Your task to perform on an android device: Search for the best rated drill on Lowes.com Image 0: 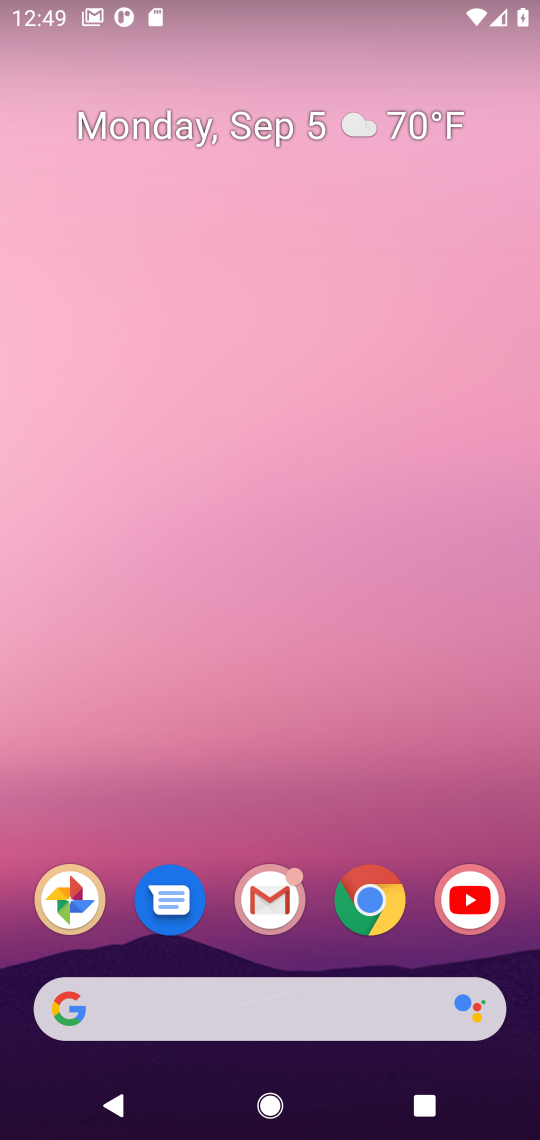
Step 0: click (374, 901)
Your task to perform on an android device: Search for the best rated drill on Lowes.com Image 1: 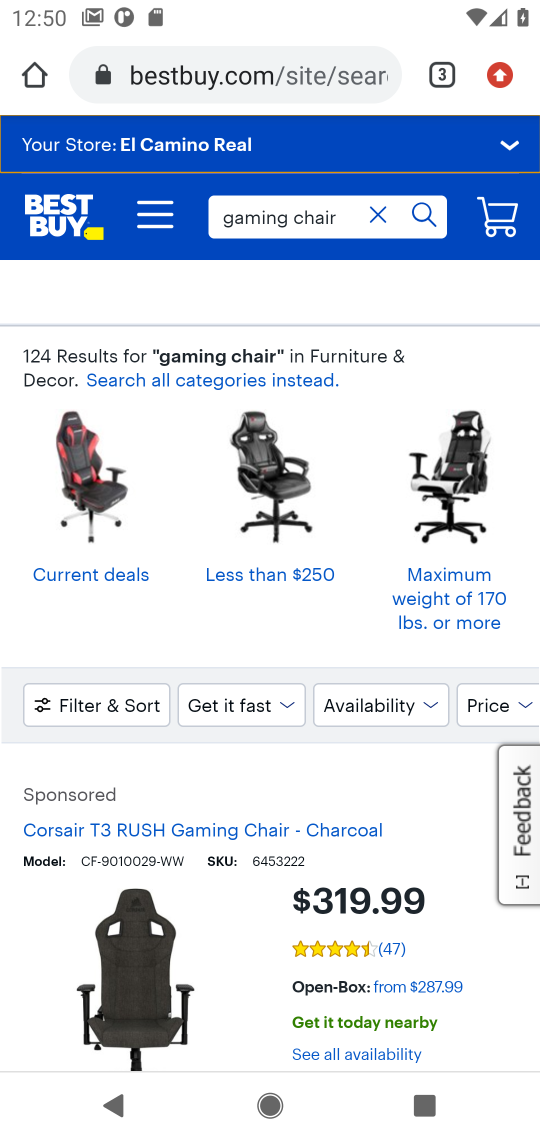
Step 1: click (505, 78)
Your task to perform on an android device: Search for the best rated drill on Lowes.com Image 2: 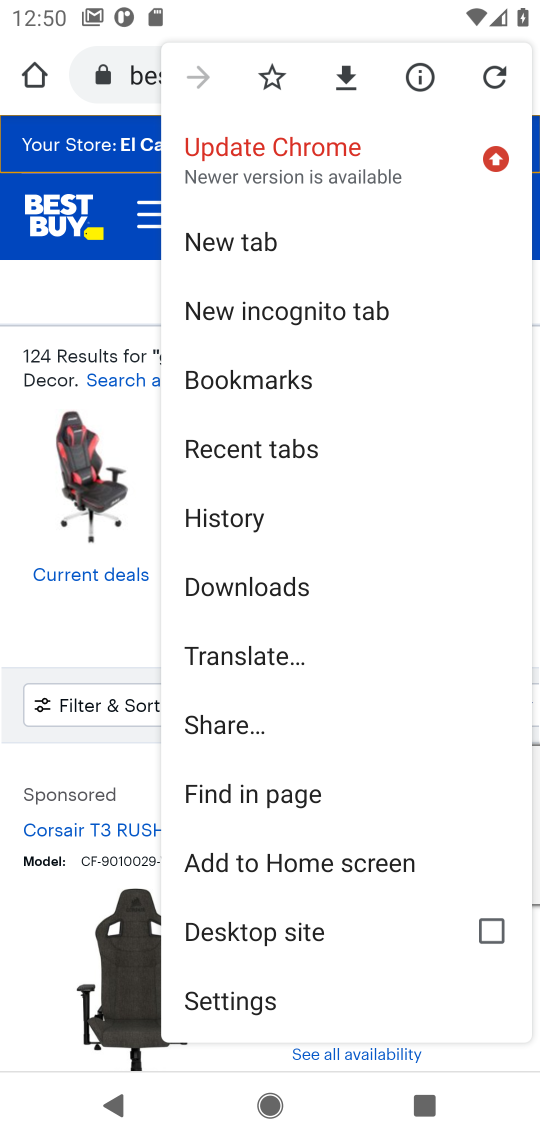
Step 2: click (217, 250)
Your task to perform on an android device: Search for the best rated drill on Lowes.com Image 3: 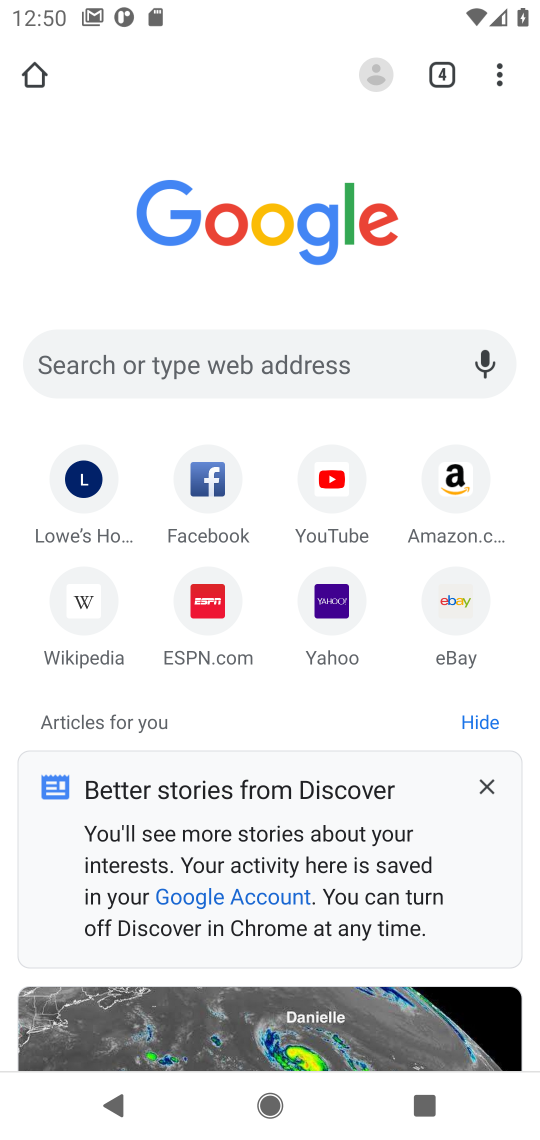
Step 3: click (270, 370)
Your task to perform on an android device: Search for the best rated drill on Lowes.com Image 4: 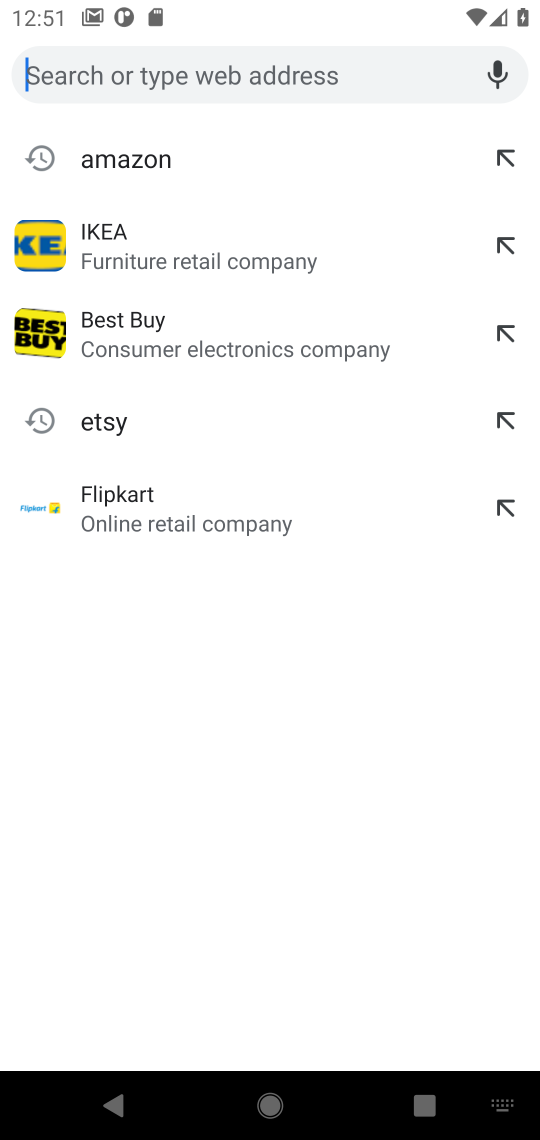
Step 4: type "Lowes.com"
Your task to perform on an android device: Search for the best rated drill on Lowes.com Image 5: 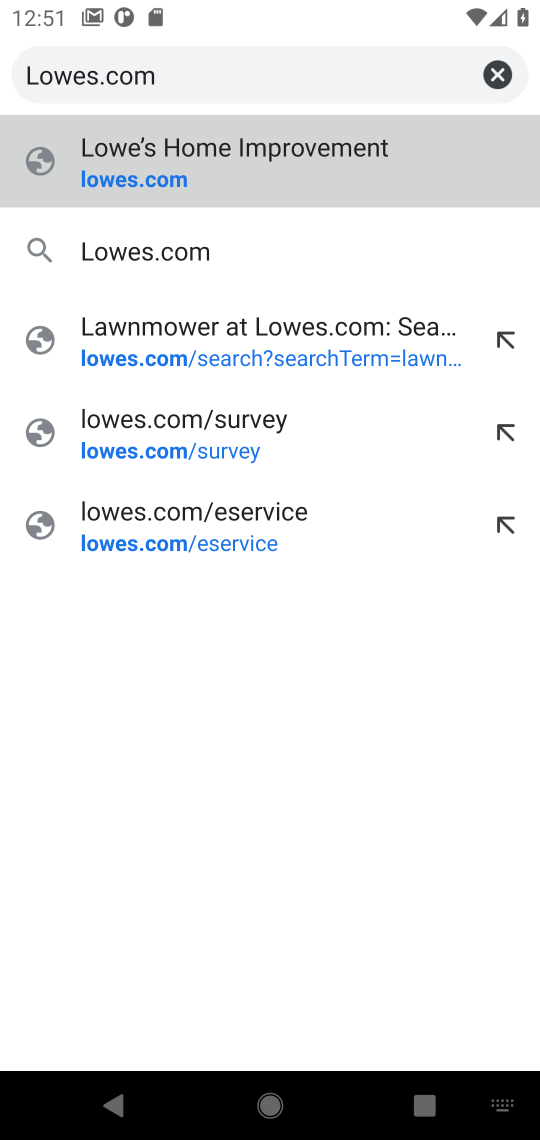
Step 5: click (115, 252)
Your task to perform on an android device: Search for the best rated drill on Lowes.com Image 6: 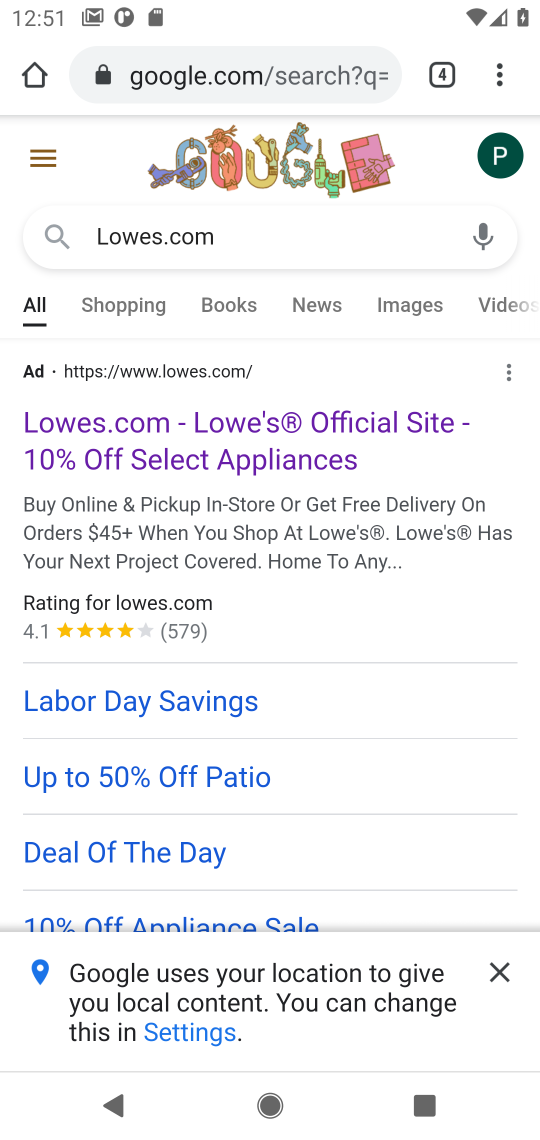
Step 6: click (110, 446)
Your task to perform on an android device: Search for the best rated drill on Lowes.com Image 7: 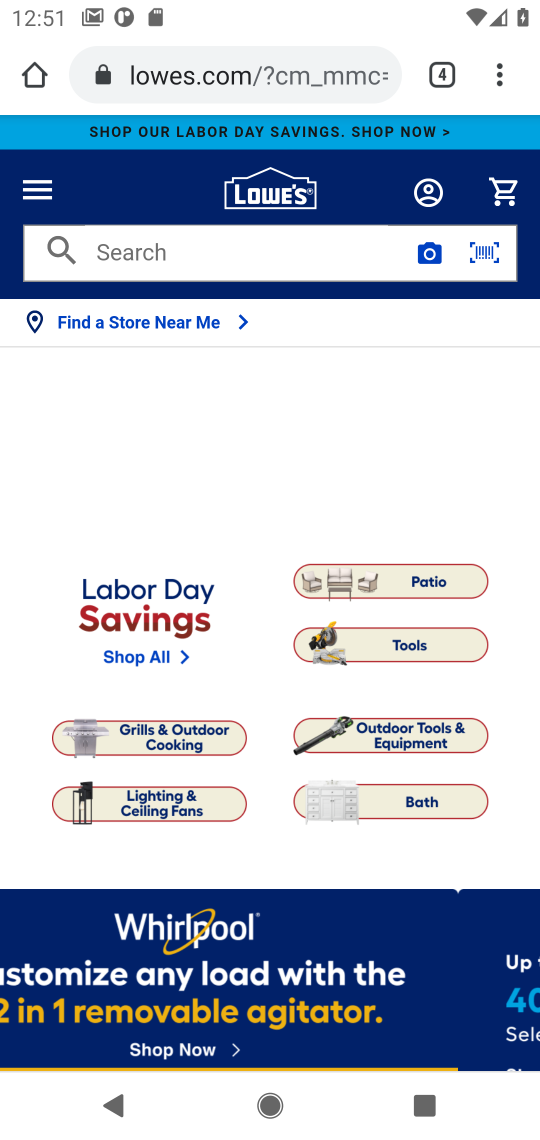
Step 7: click (246, 246)
Your task to perform on an android device: Search for the best rated drill on Lowes.com Image 8: 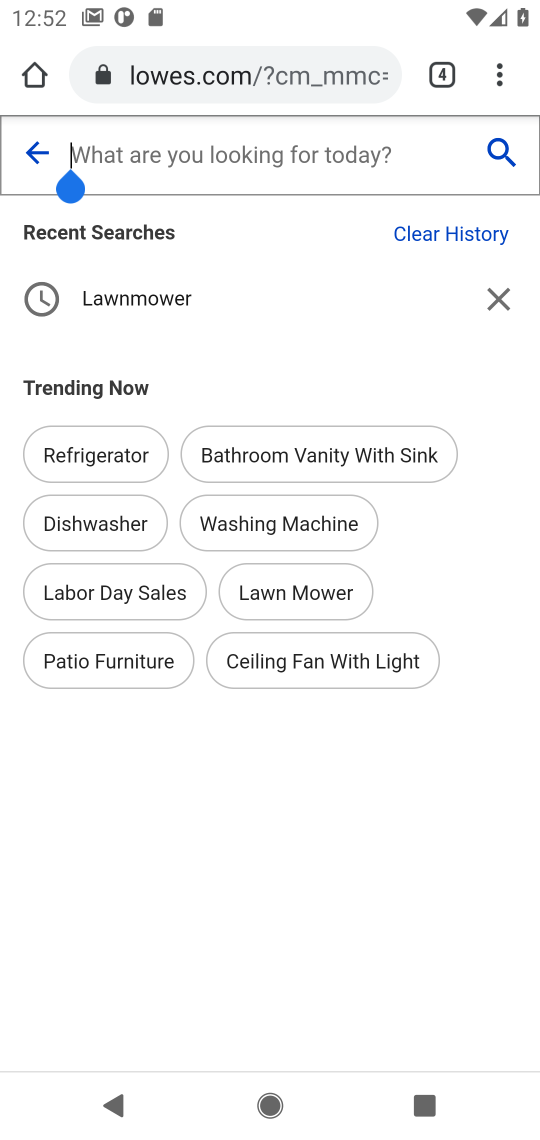
Step 8: type "drill"
Your task to perform on an android device: Search for the best rated drill on Lowes.com Image 9: 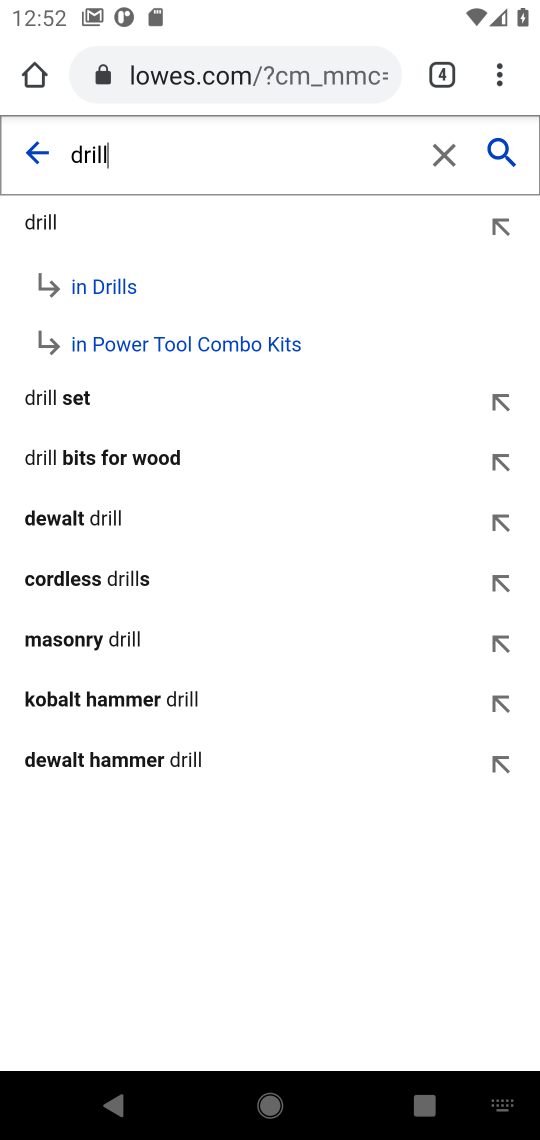
Step 9: click (44, 224)
Your task to perform on an android device: Search for the best rated drill on Lowes.com Image 10: 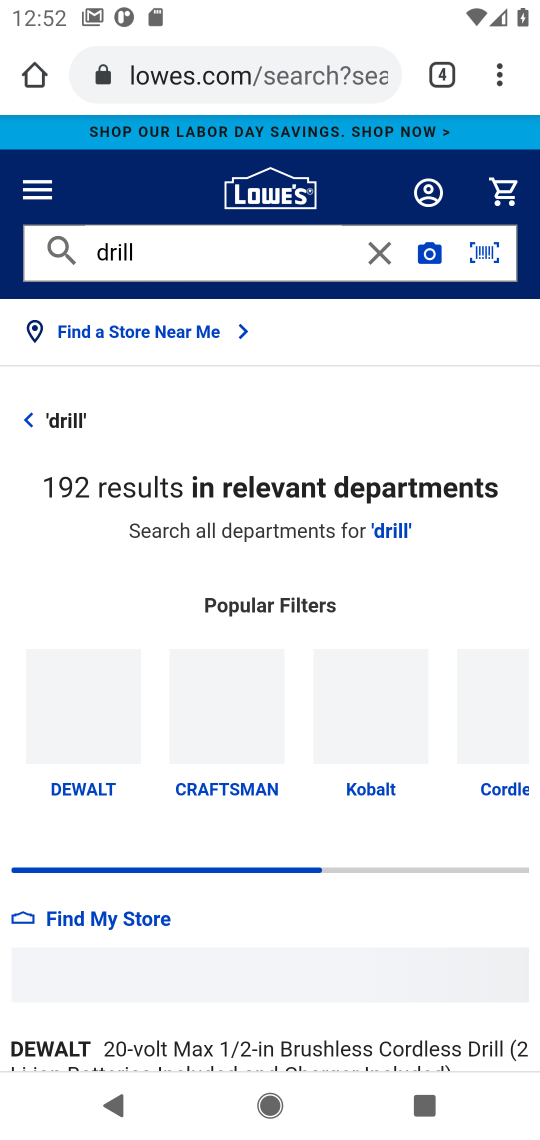
Step 10: task complete